Your task to perform on an android device: turn off javascript in the chrome app Image 0: 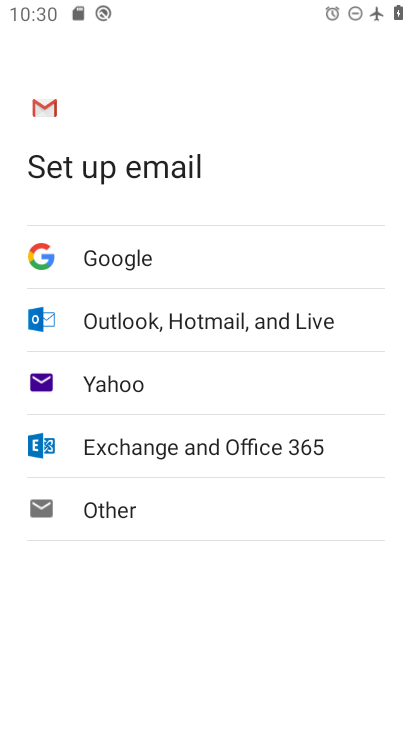
Step 0: press home button
Your task to perform on an android device: turn off javascript in the chrome app Image 1: 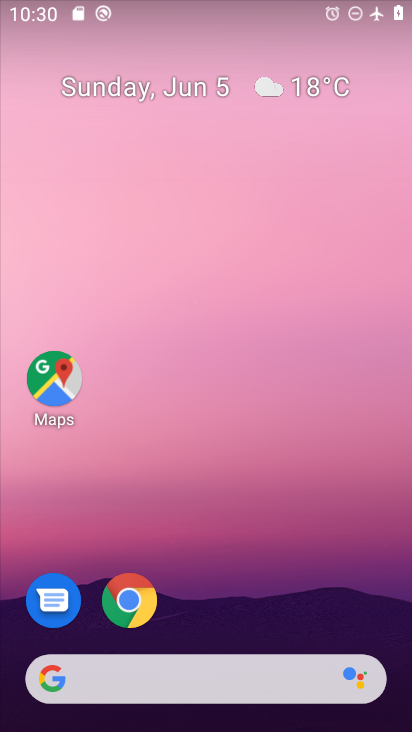
Step 1: click (124, 595)
Your task to perform on an android device: turn off javascript in the chrome app Image 2: 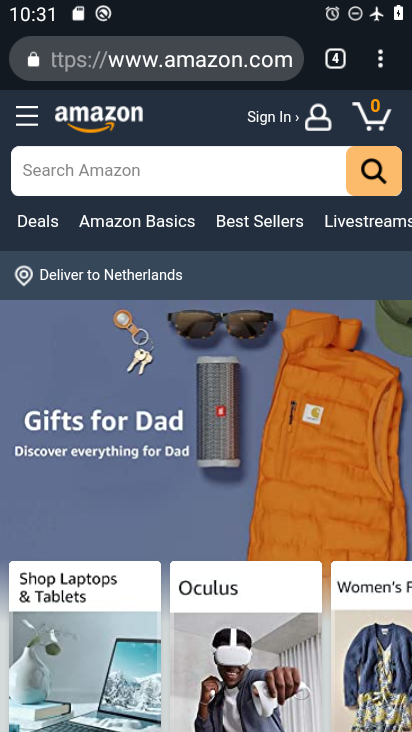
Step 2: click (379, 74)
Your task to perform on an android device: turn off javascript in the chrome app Image 3: 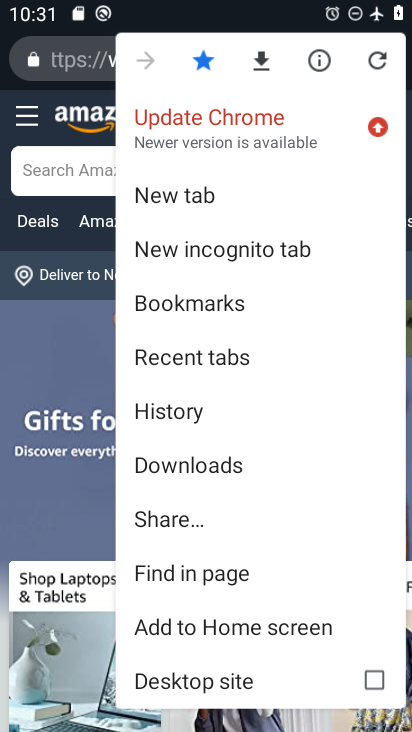
Step 3: drag from (246, 507) to (231, 230)
Your task to perform on an android device: turn off javascript in the chrome app Image 4: 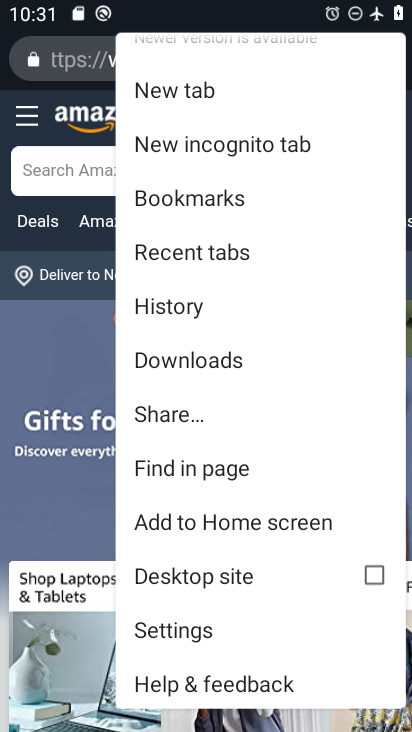
Step 4: click (206, 622)
Your task to perform on an android device: turn off javascript in the chrome app Image 5: 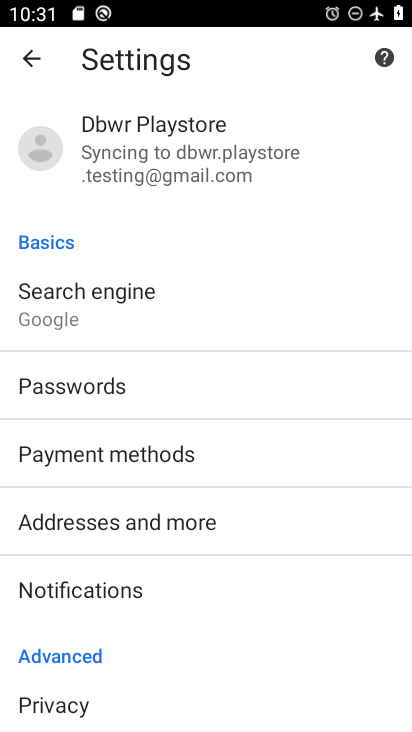
Step 5: drag from (259, 559) to (223, 292)
Your task to perform on an android device: turn off javascript in the chrome app Image 6: 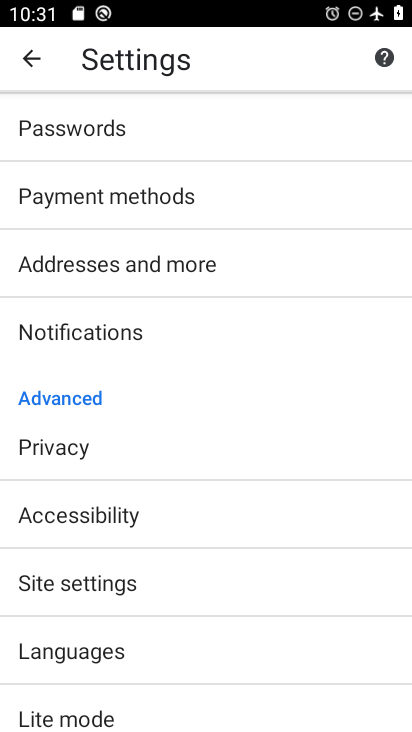
Step 6: click (195, 580)
Your task to perform on an android device: turn off javascript in the chrome app Image 7: 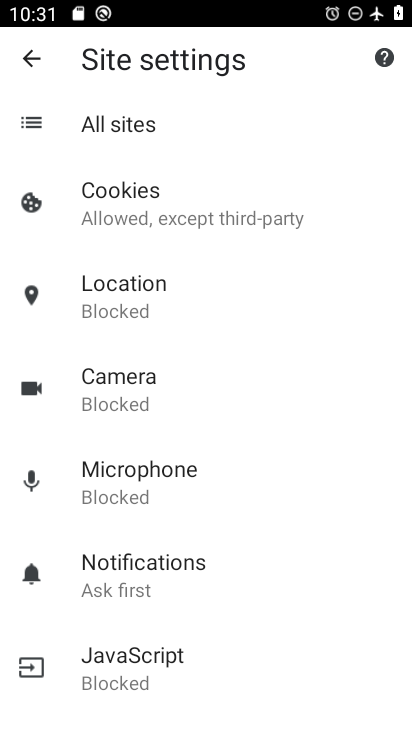
Step 7: click (236, 670)
Your task to perform on an android device: turn off javascript in the chrome app Image 8: 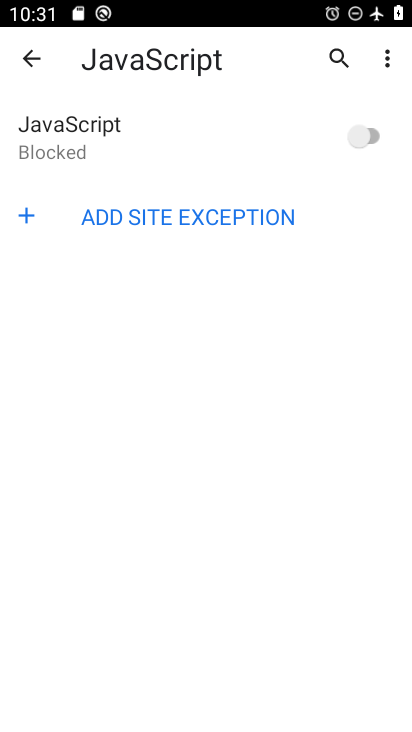
Step 8: task complete